Your task to perform on an android device: set the stopwatch Image 0: 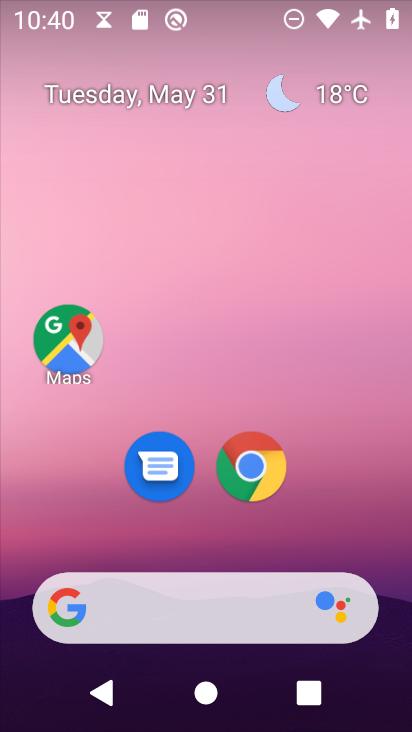
Step 0: drag from (348, 544) to (274, 36)
Your task to perform on an android device: set the stopwatch Image 1: 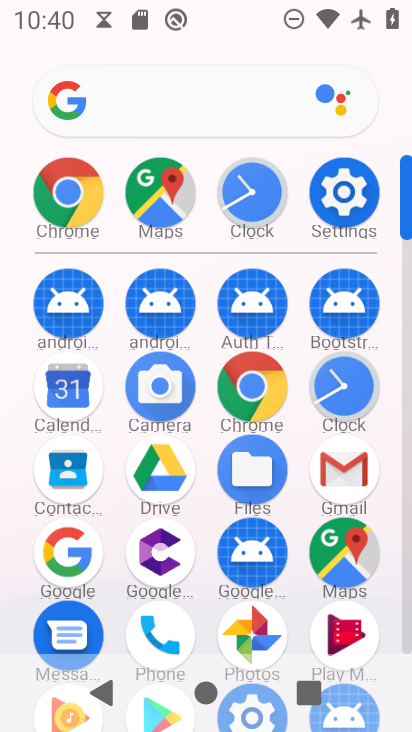
Step 1: click (346, 376)
Your task to perform on an android device: set the stopwatch Image 2: 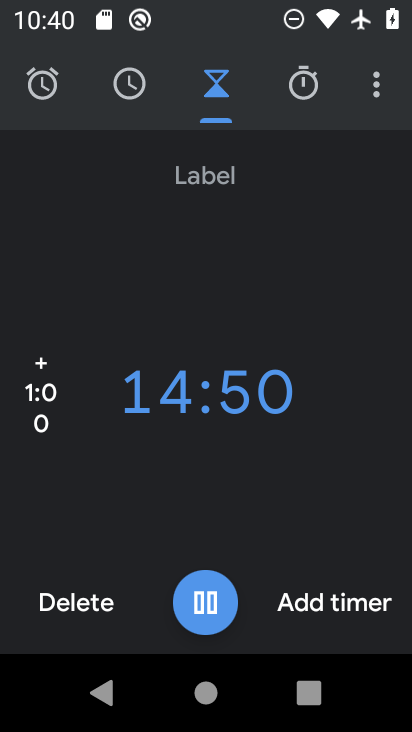
Step 2: click (61, 80)
Your task to perform on an android device: set the stopwatch Image 3: 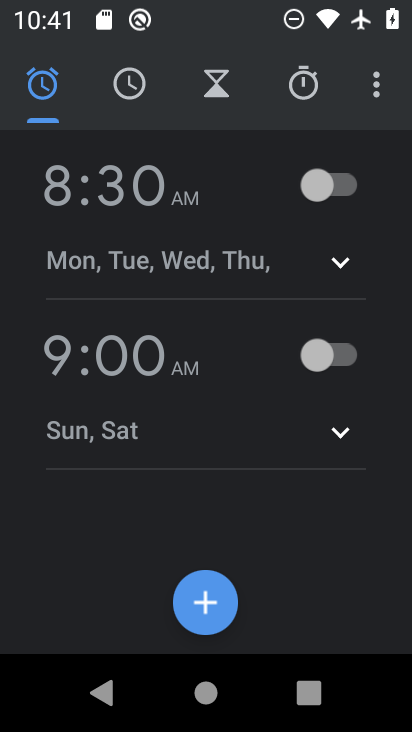
Step 3: click (293, 68)
Your task to perform on an android device: set the stopwatch Image 4: 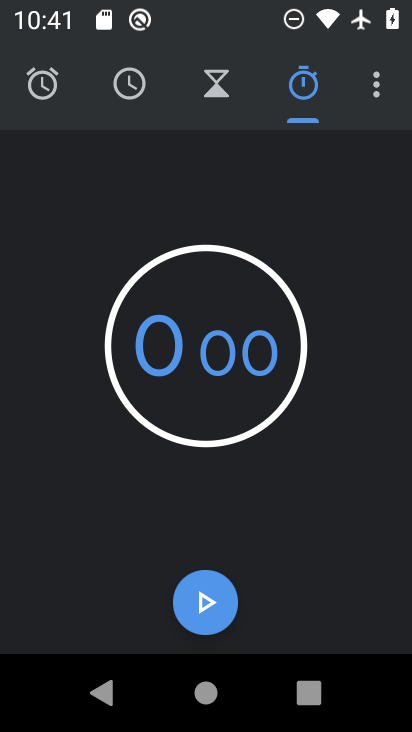
Step 4: click (189, 602)
Your task to perform on an android device: set the stopwatch Image 5: 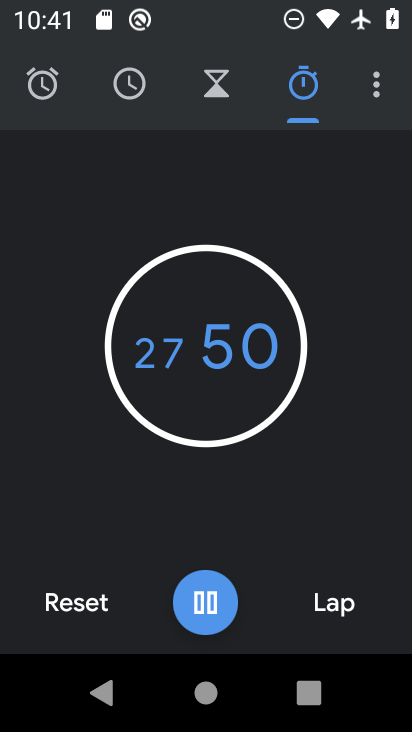
Step 5: click (61, 604)
Your task to perform on an android device: set the stopwatch Image 6: 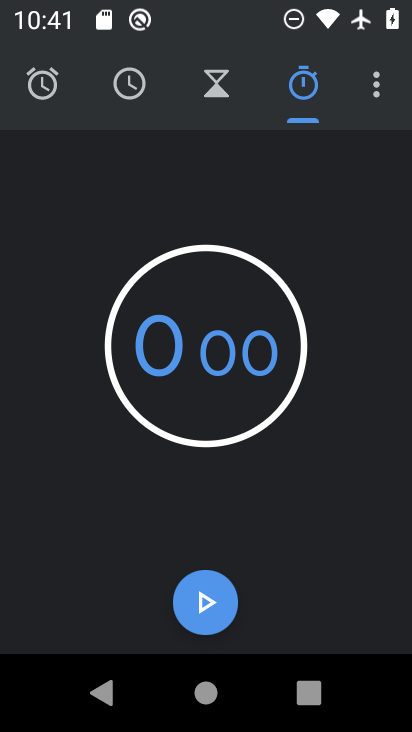
Step 6: click (205, 599)
Your task to perform on an android device: set the stopwatch Image 7: 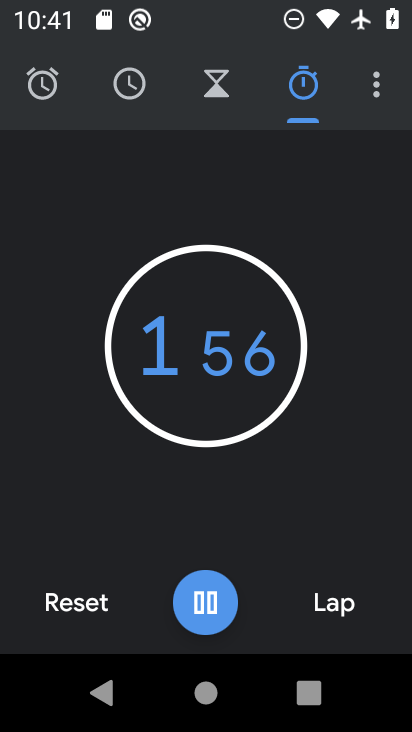
Step 7: task complete